Your task to perform on an android device: Open calendar and show me the first week of next month Image 0: 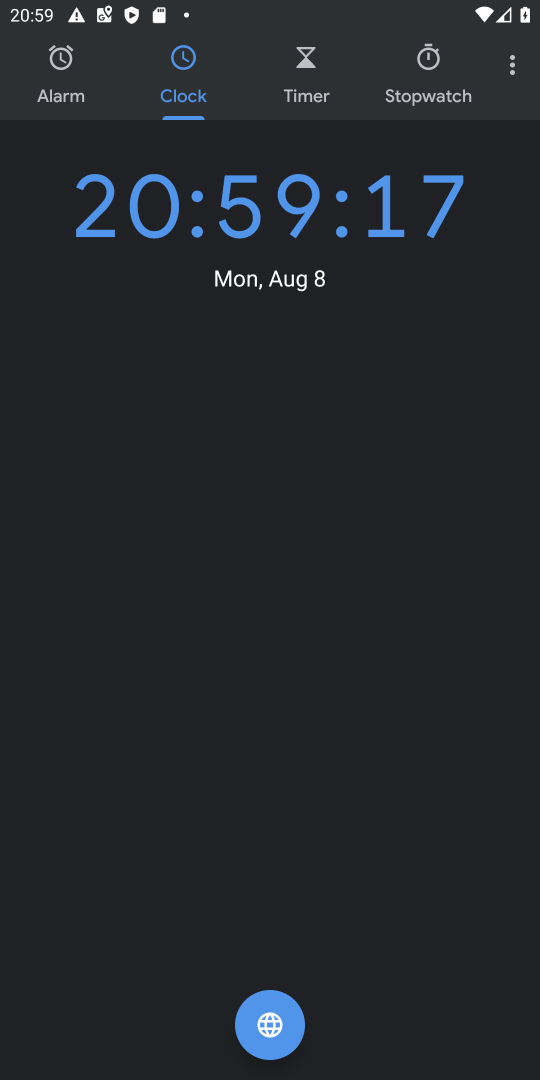
Step 0: press home button
Your task to perform on an android device: Open calendar and show me the first week of next month Image 1: 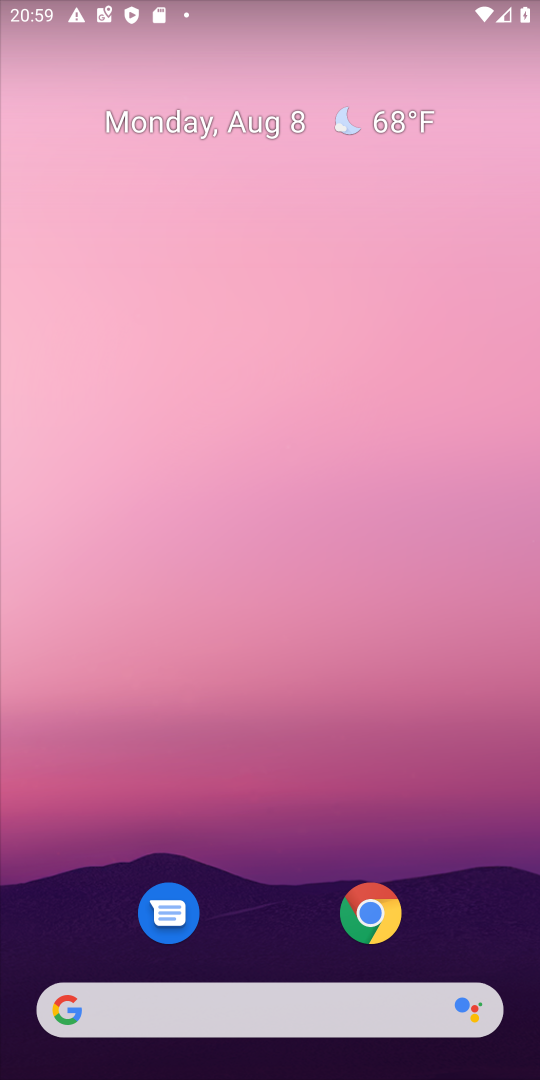
Step 1: drag from (175, 1007) to (199, 148)
Your task to perform on an android device: Open calendar and show me the first week of next month Image 2: 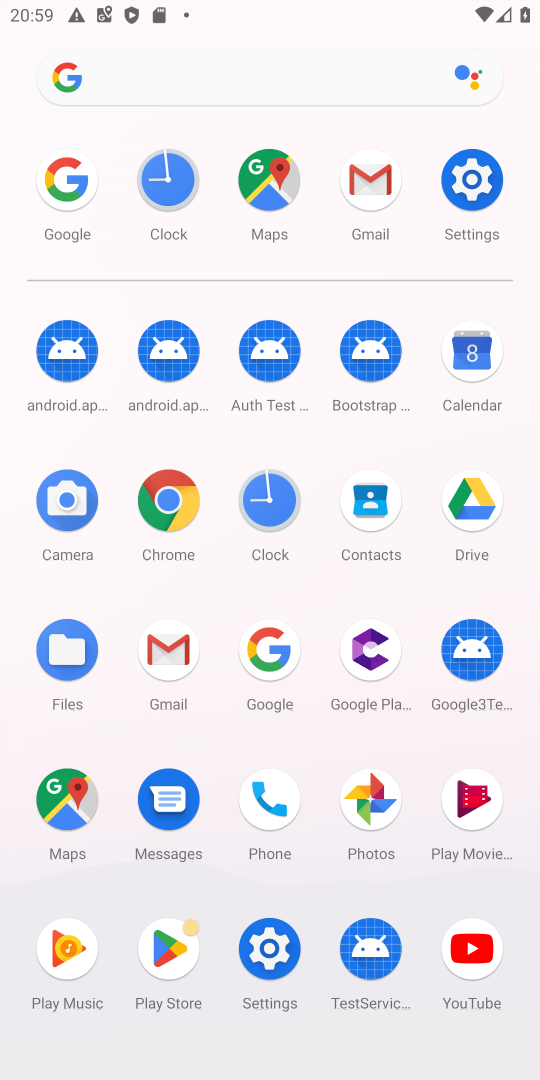
Step 2: click (470, 351)
Your task to perform on an android device: Open calendar and show me the first week of next month Image 3: 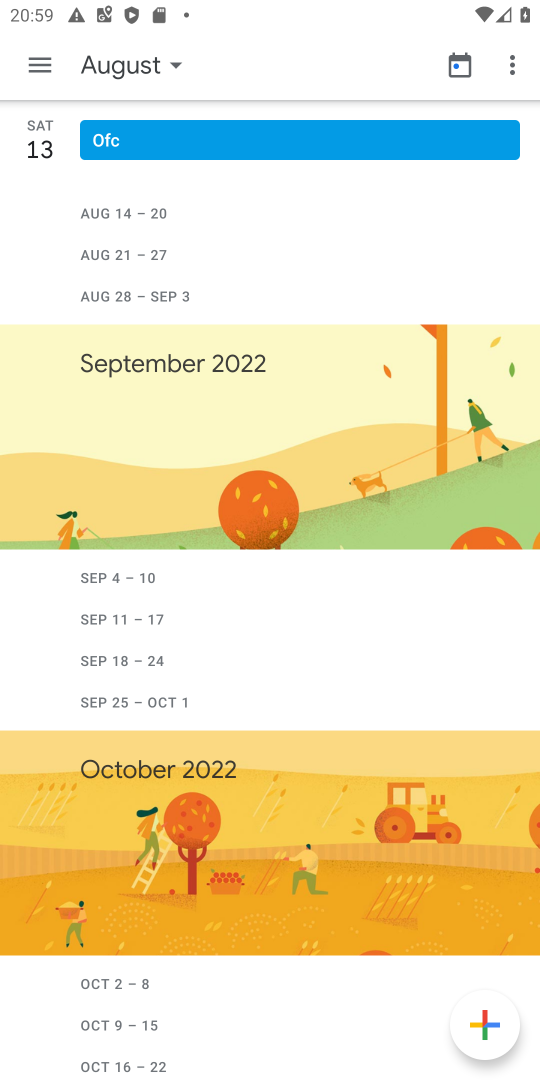
Step 3: click (171, 64)
Your task to perform on an android device: Open calendar and show me the first week of next month Image 4: 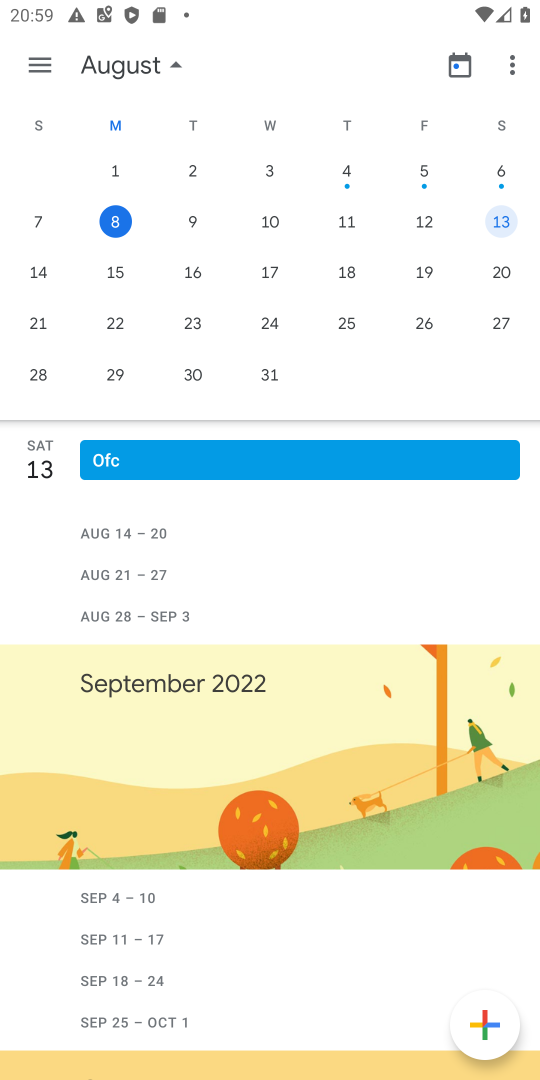
Step 4: drag from (364, 323) to (1, 332)
Your task to perform on an android device: Open calendar and show me the first week of next month Image 5: 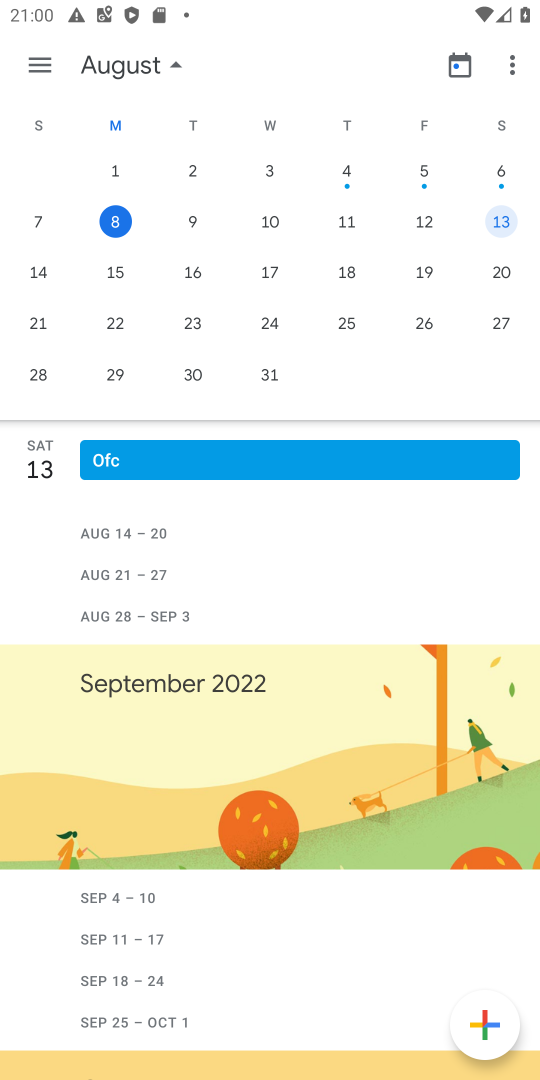
Step 5: drag from (485, 285) to (4, 286)
Your task to perform on an android device: Open calendar and show me the first week of next month Image 6: 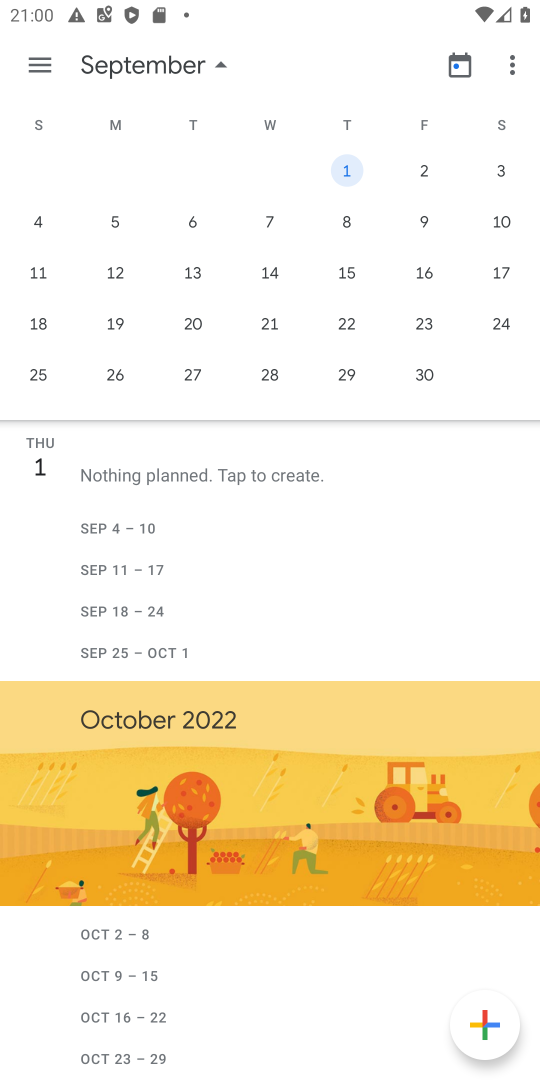
Step 6: click (116, 228)
Your task to perform on an android device: Open calendar and show me the first week of next month Image 7: 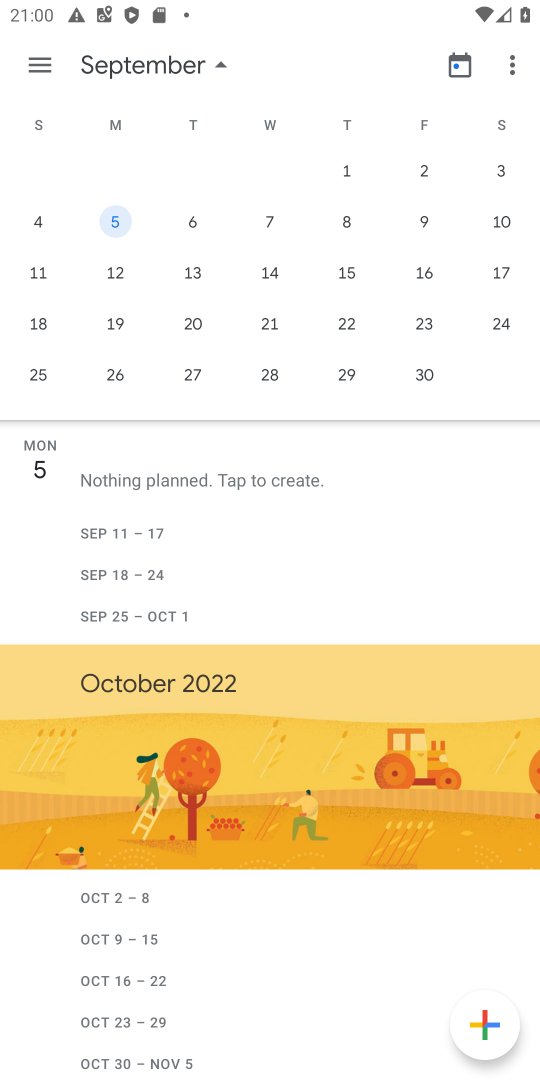
Step 7: click (47, 69)
Your task to perform on an android device: Open calendar and show me the first week of next month Image 8: 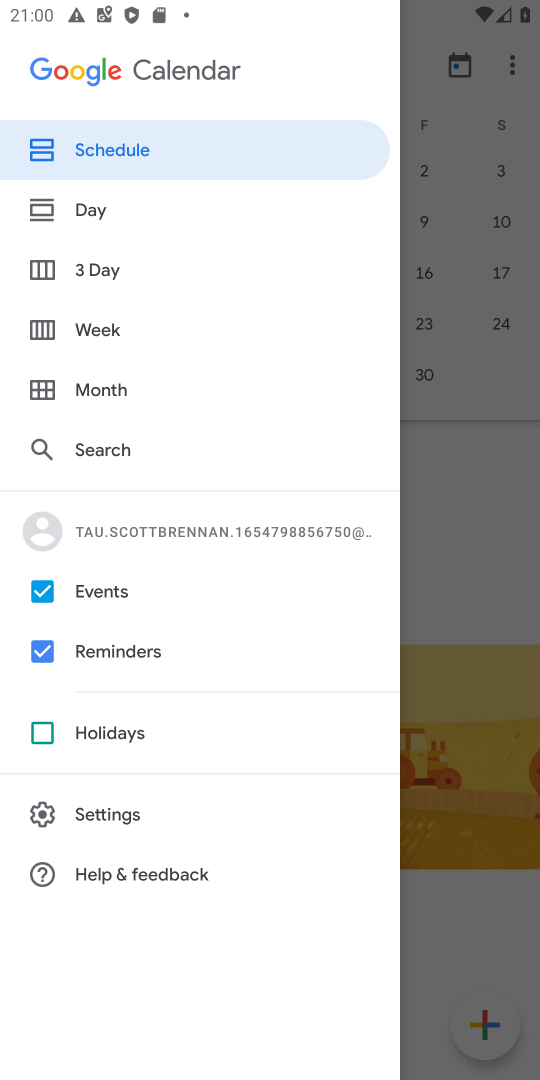
Step 8: click (102, 327)
Your task to perform on an android device: Open calendar and show me the first week of next month Image 9: 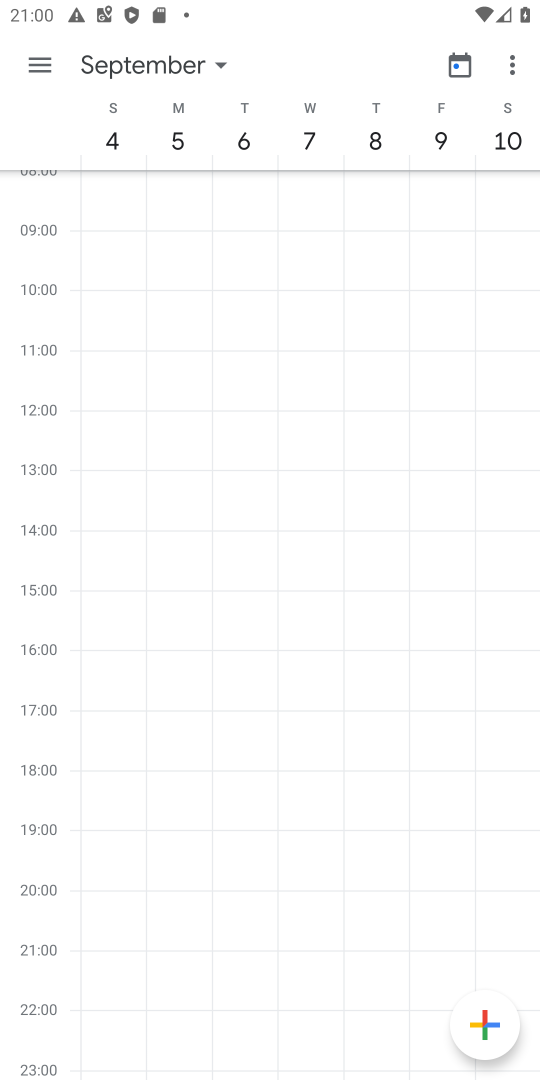
Step 9: task complete